Your task to perform on an android device: toggle pop-ups in chrome Image 0: 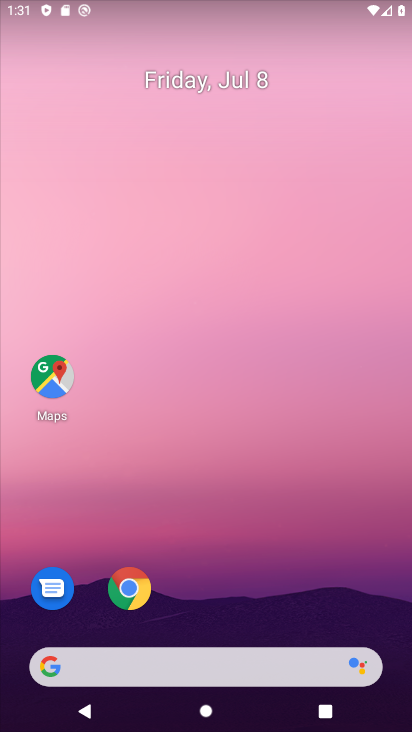
Step 0: press home button
Your task to perform on an android device: toggle pop-ups in chrome Image 1: 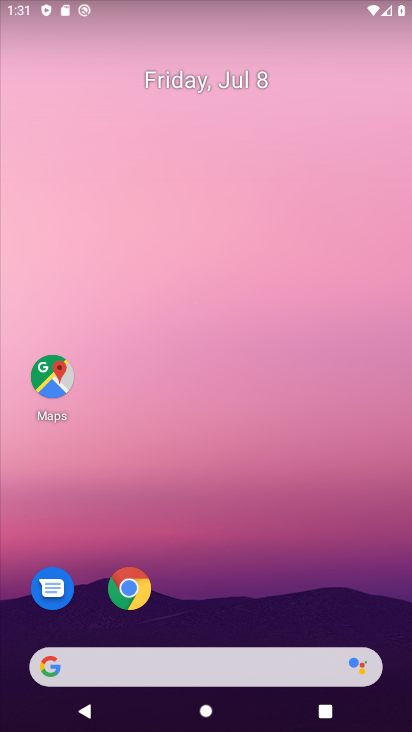
Step 1: click (141, 583)
Your task to perform on an android device: toggle pop-ups in chrome Image 2: 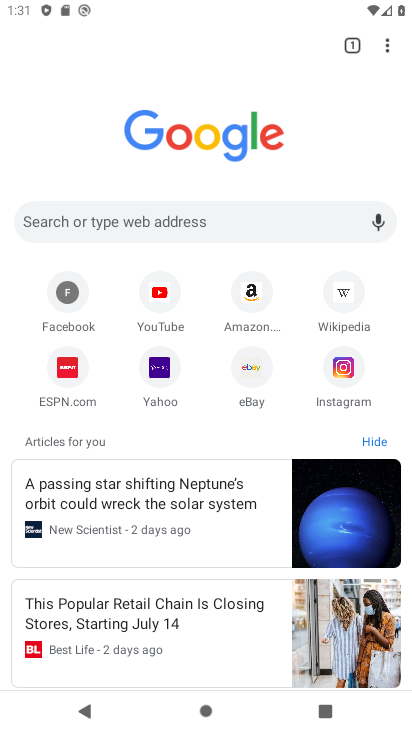
Step 2: drag from (391, 43) to (224, 373)
Your task to perform on an android device: toggle pop-ups in chrome Image 3: 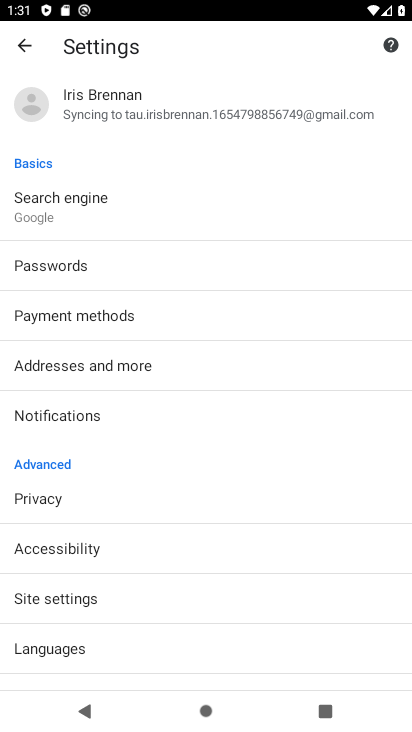
Step 3: drag from (146, 466) to (154, 114)
Your task to perform on an android device: toggle pop-ups in chrome Image 4: 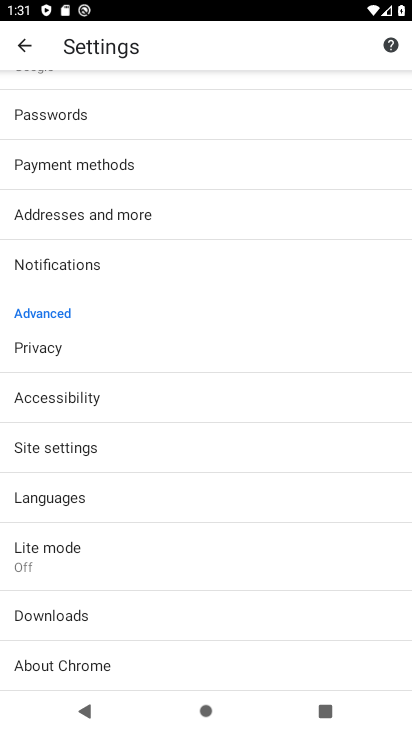
Step 4: drag from (207, 327) to (232, 22)
Your task to perform on an android device: toggle pop-ups in chrome Image 5: 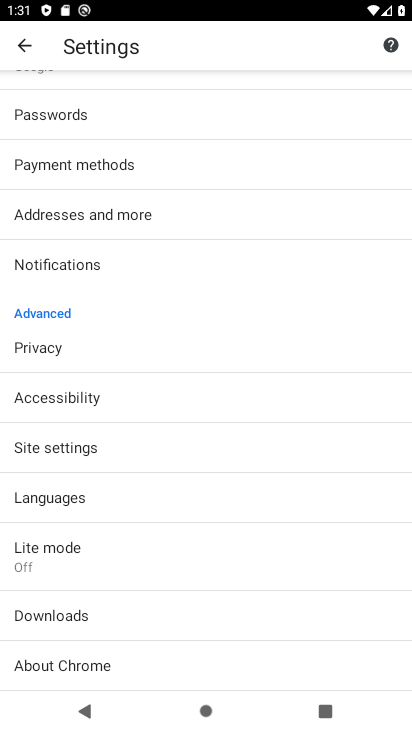
Step 5: click (47, 463)
Your task to perform on an android device: toggle pop-ups in chrome Image 6: 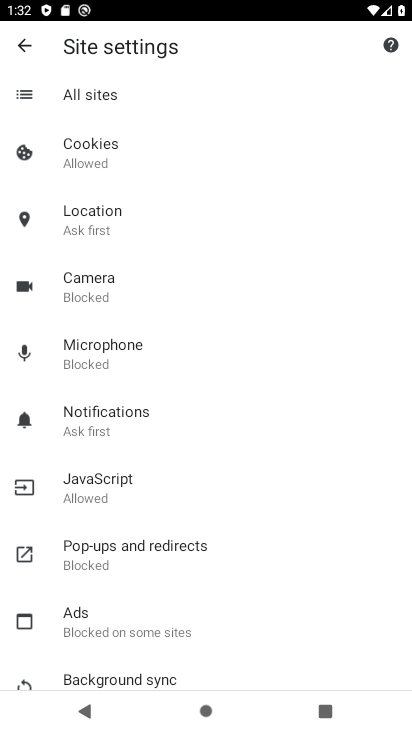
Step 6: click (91, 557)
Your task to perform on an android device: toggle pop-ups in chrome Image 7: 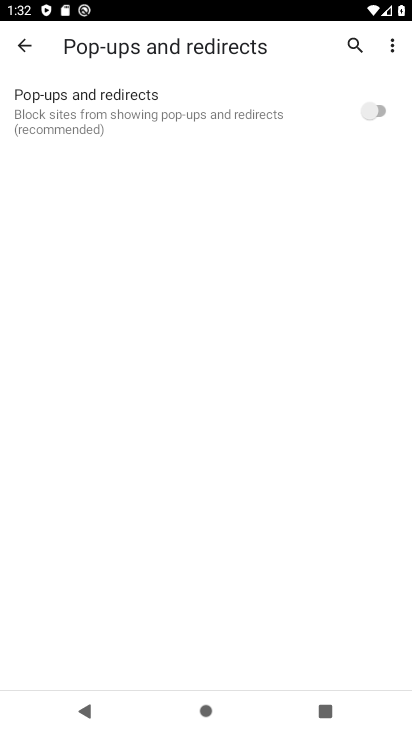
Step 7: click (369, 110)
Your task to perform on an android device: toggle pop-ups in chrome Image 8: 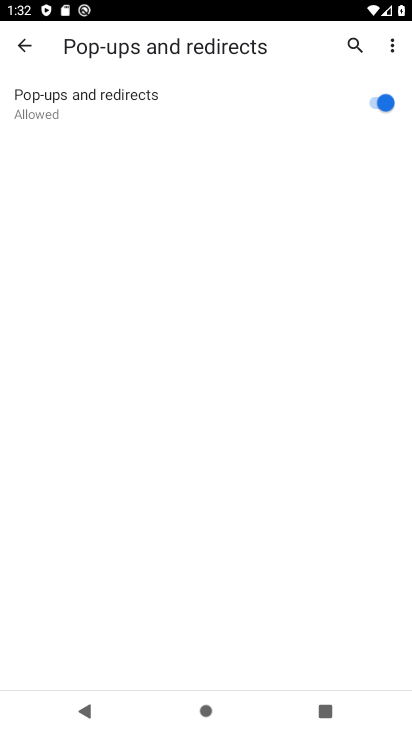
Step 8: task complete